Your task to perform on an android device: open a bookmark in the chrome app Image 0: 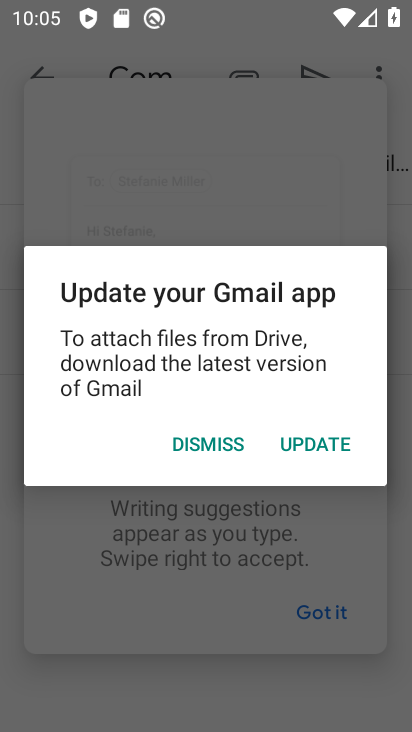
Step 0: press home button
Your task to perform on an android device: open a bookmark in the chrome app Image 1: 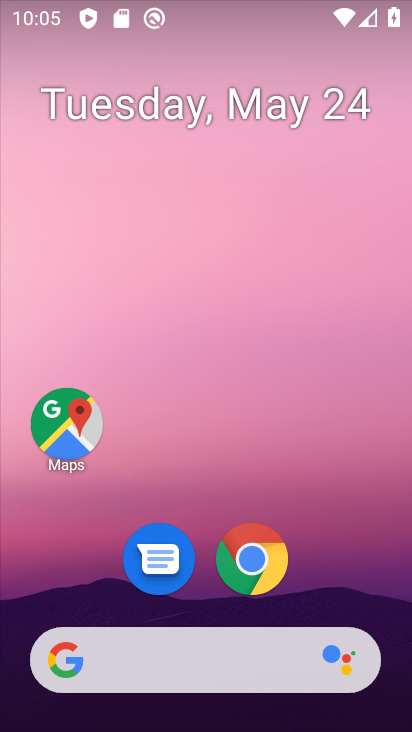
Step 1: click (258, 566)
Your task to perform on an android device: open a bookmark in the chrome app Image 2: 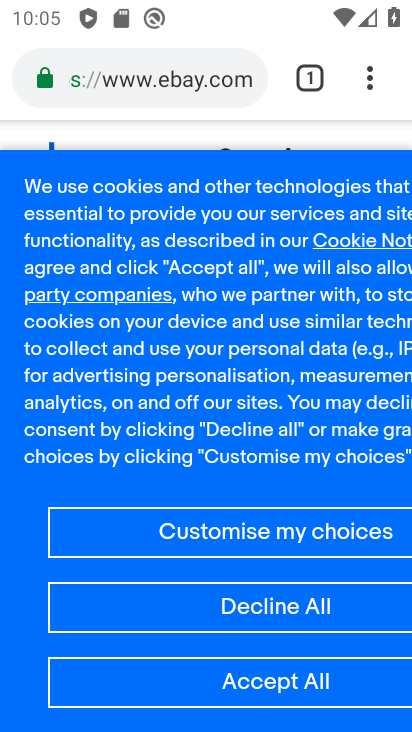
Step 2: task complete